Your task to perform on an android device: snooze an email in the gmail app Image 0: 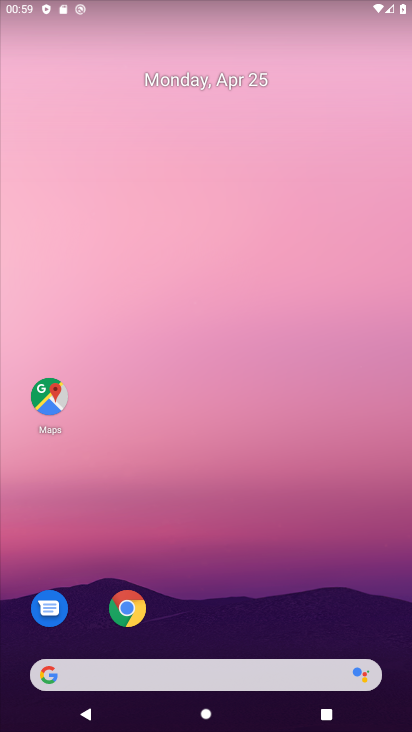
Step 0: click (214, 101)
Your task to perform on an android device: snooze an email in the gmail app Image 1: 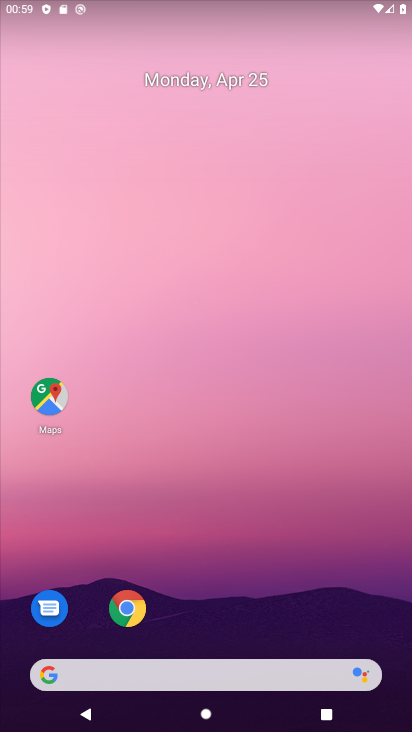
Step 1: drag from (216, 621) to (164, 144)
Your task to perform on an android device: snooze an email in the gmail app Image 2: 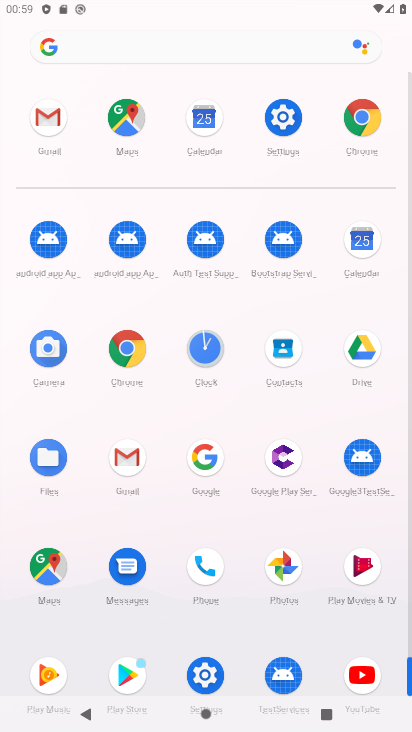
Step 2: click (56, 142)
Your task to perform on an android device: snooze an email in the gmail app Image 3: 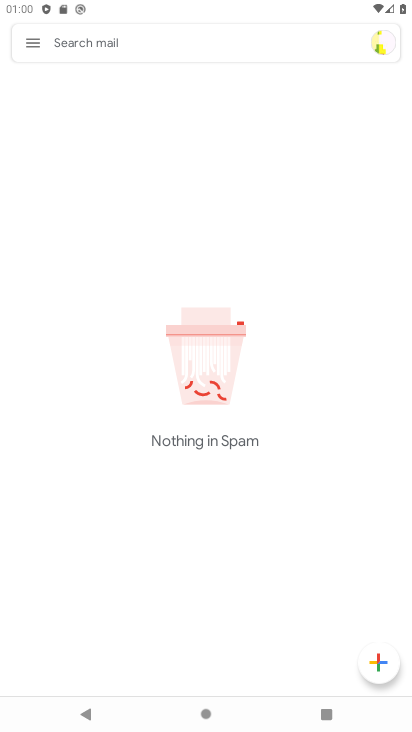
Step 3: click (29, 49)
Your task to perform on an android device: snooze an email in the gmail app Image 4: 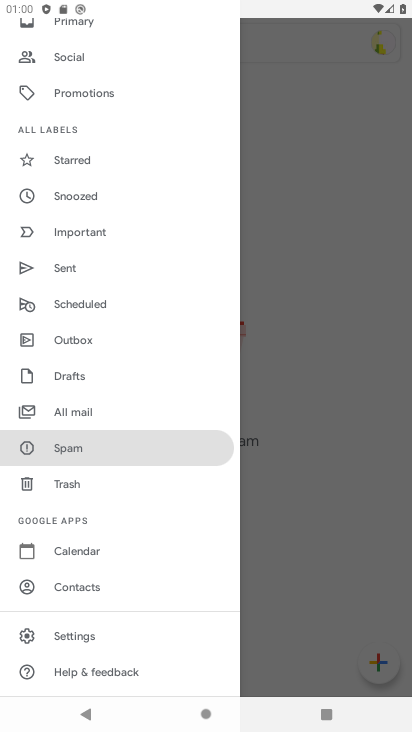
Step 4: click (110, 403)
Your task to perform on an android device: snooze an email in the gmail app Image 5: 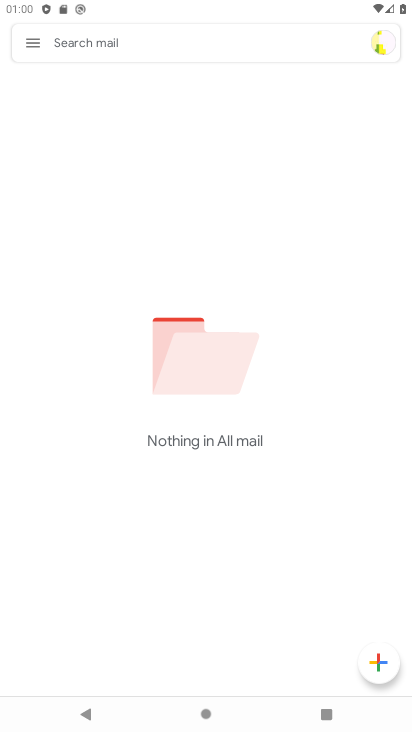
Step 5: task complete